Your task to perform on an android device: Open eBay Image 0: 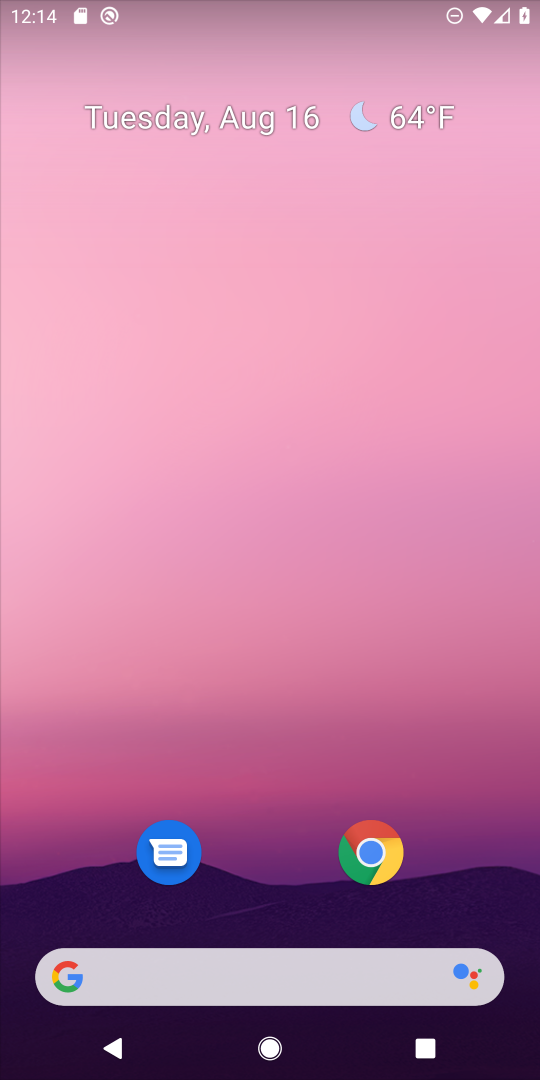
Step 0: click (371, 859)
Your task to perform on an android device: Open eBay Image 1: 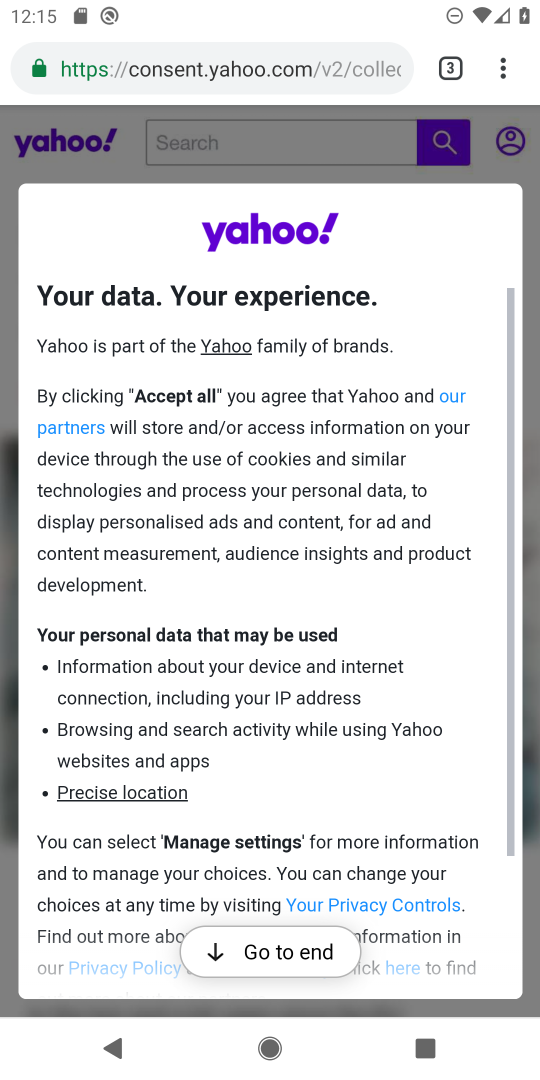
Step 1: click (449, 63)
Your task to perform on an android device: Open eBay Image 2: 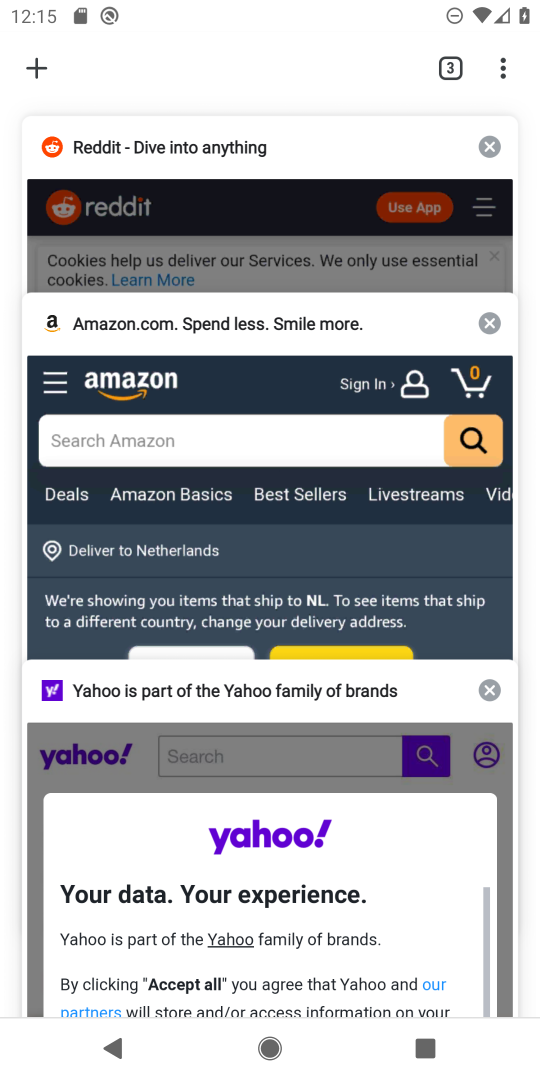
Step 2: click (34, 60)
Your task to perform on an android device: Open eBay Image 3: 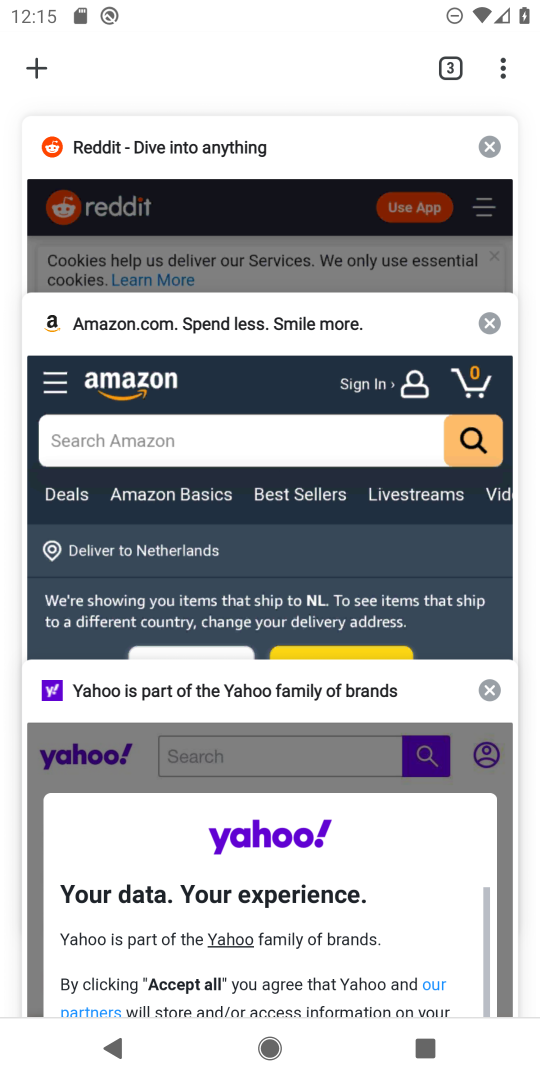
Step 3: click (41, 60)
Your task to perform on an android device: Open eBay Image 4: 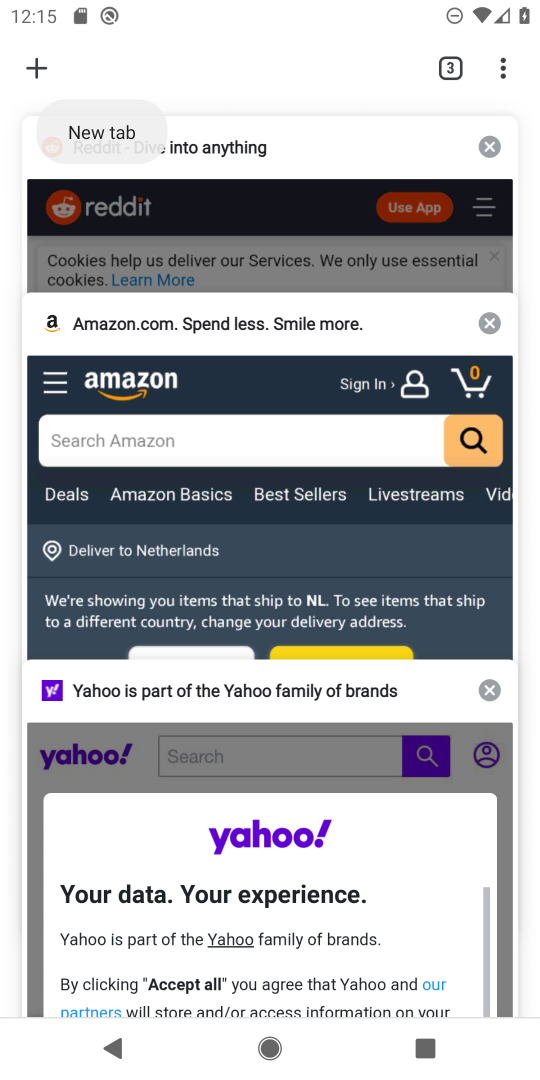
Step 4: click (29, 70)
Your task to perform on an android device: Open eBay Image 5: 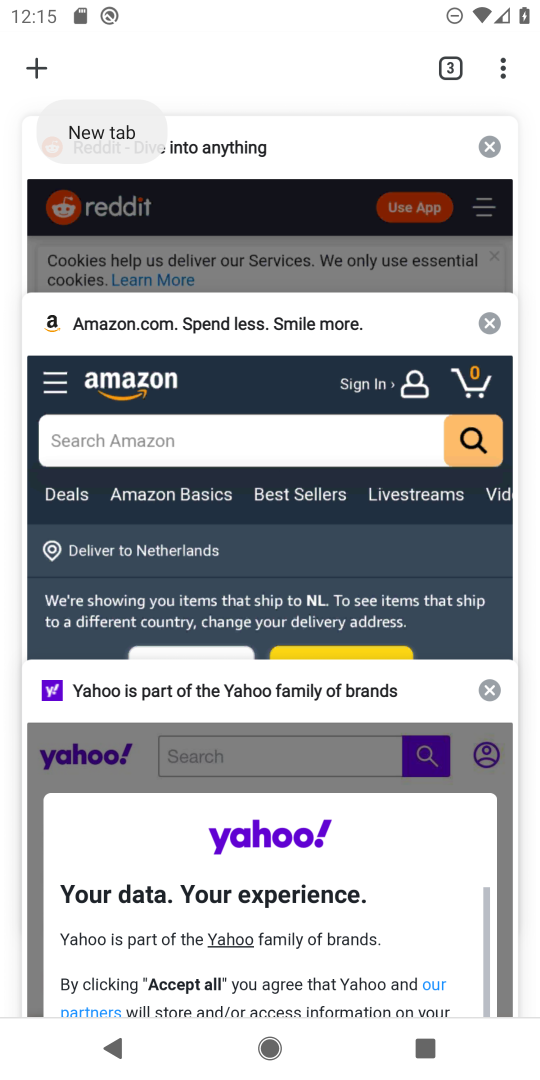
Step 5: click (27, 71)
Your task to perform on an android device: Open eBay Image 6: 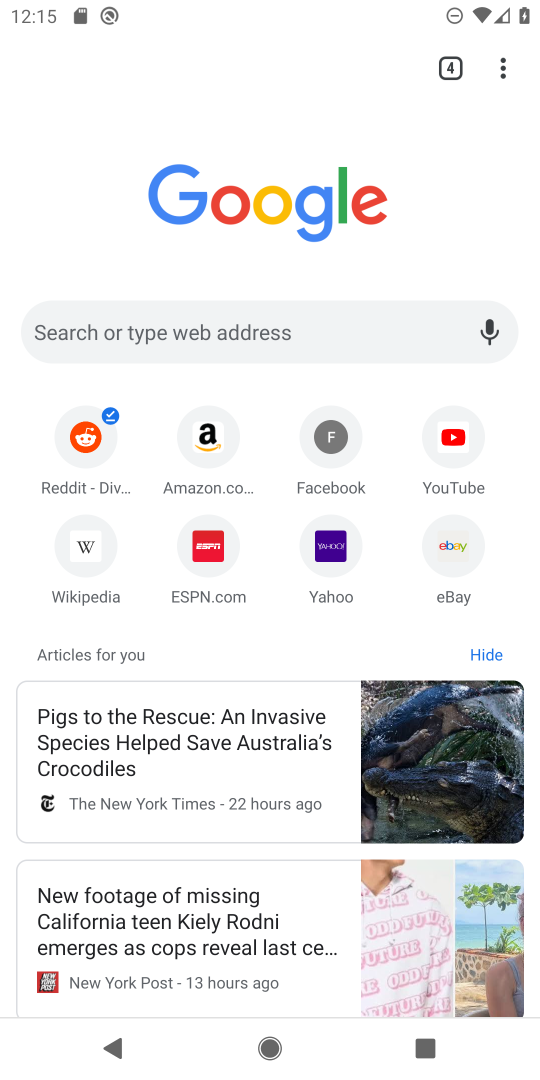
Step 6: click (447, 544)
Your task to perform on an android device: Open eBay Image 7: 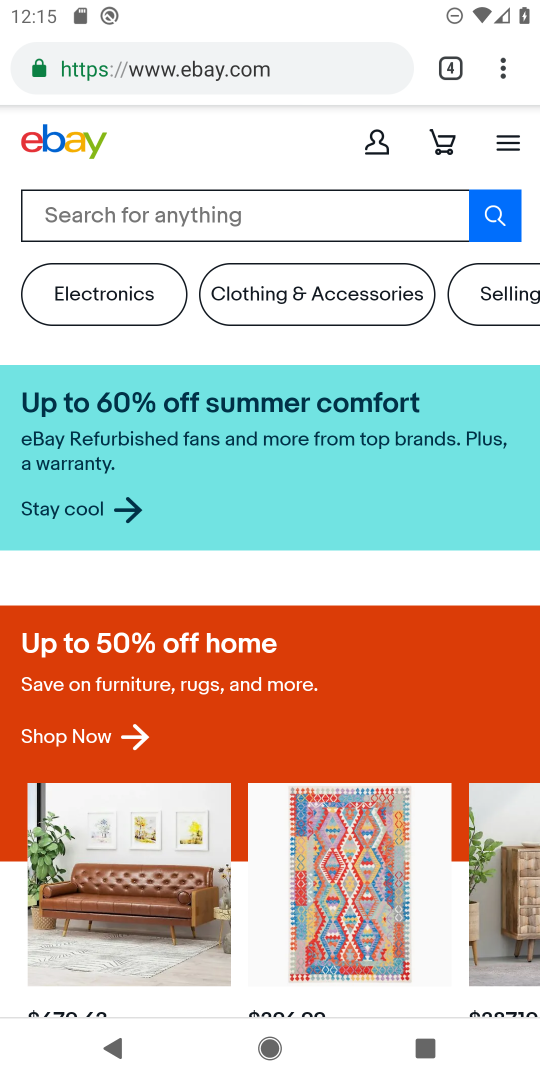
Step 7: task complete